Your task to perform on an android device: Open calendar and show me the fourth week of next month Image 0: 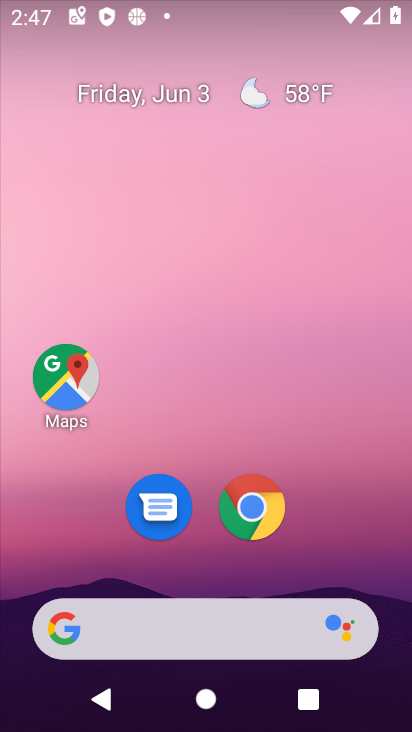
Step 0: drag from (340, 550) to (266, 104)
Your task to perform on an android device: Open calendar and show me the fourth week of next month Image 1: 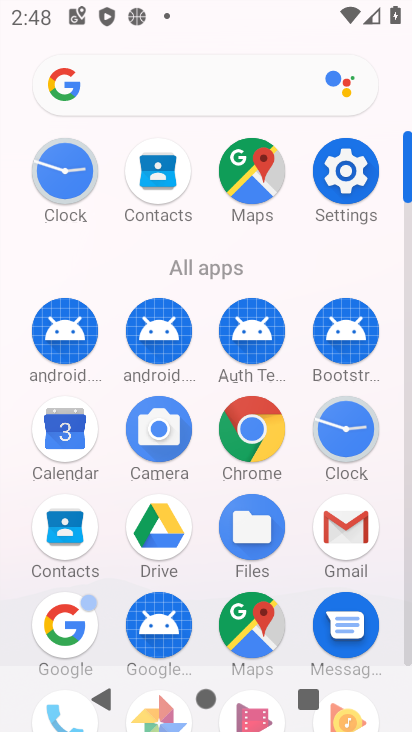
Step 1: click (66, 433)
Your task to perform on an android device: Open calendar and show me the fourth week of next month Image 2: 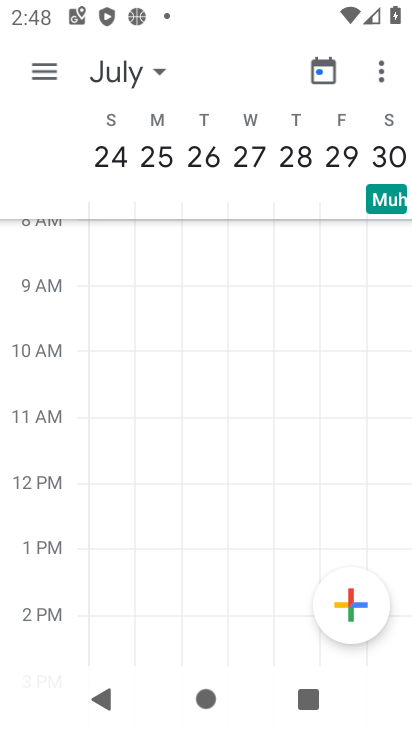
Step 2: click (328, 74)
Your task to perform on an android device: Open calendar and show me the fourth week of next month Image 3: 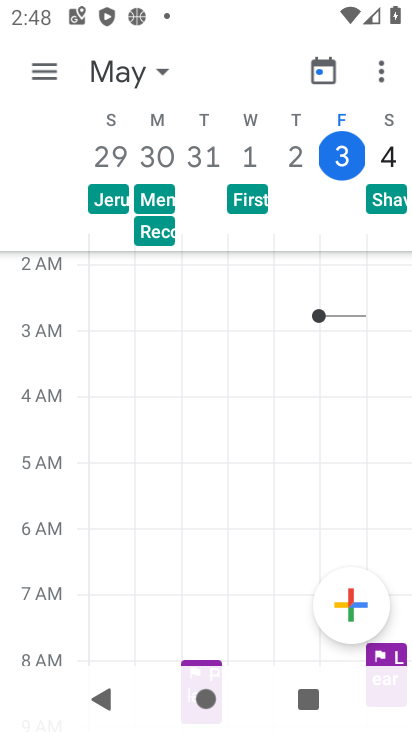
Step 3: click (156, 67)
Your task to perform on an android device: Open calendar and show me the fourth week of next month Image 4: 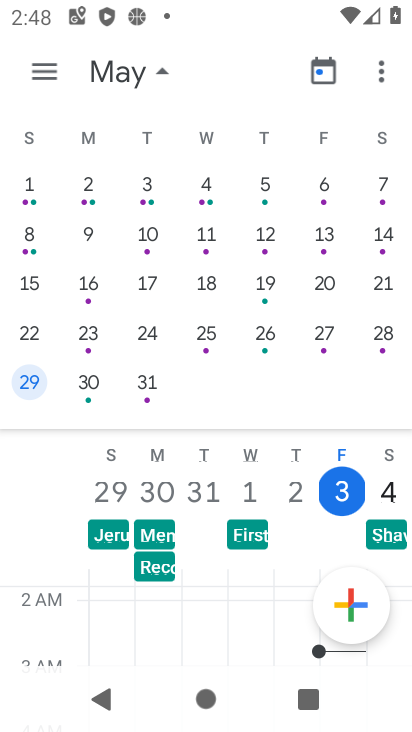
Step 4: click (327, 67)
Your task to perform on an android device: Open calendar and show me the fourth week of next month Image 5: 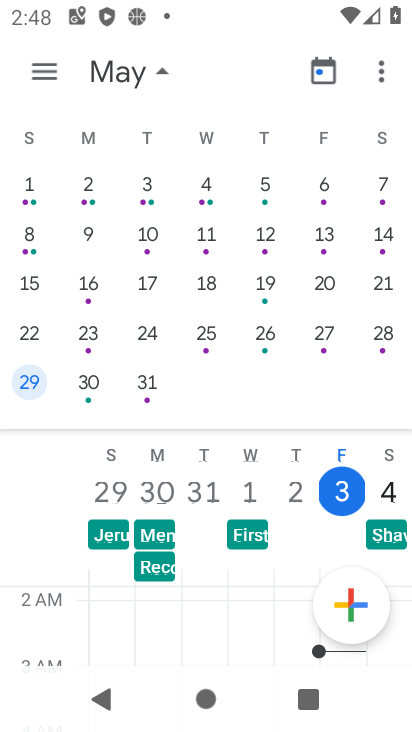
Step 5: click (327, 67)
Your task to perform on an android device: Open calendar and show me the fourth week of next month Image 6: 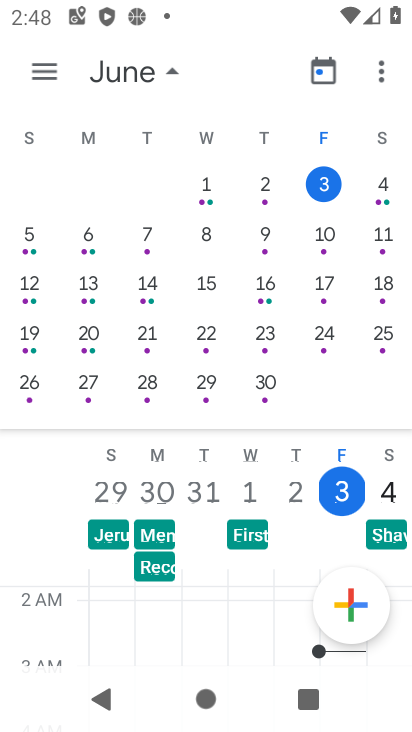
Step 6: drag from (355, 305) to (2, 342)
Your task to perform on an android device: Open calendar and show me the fourth week of next month Image 7: 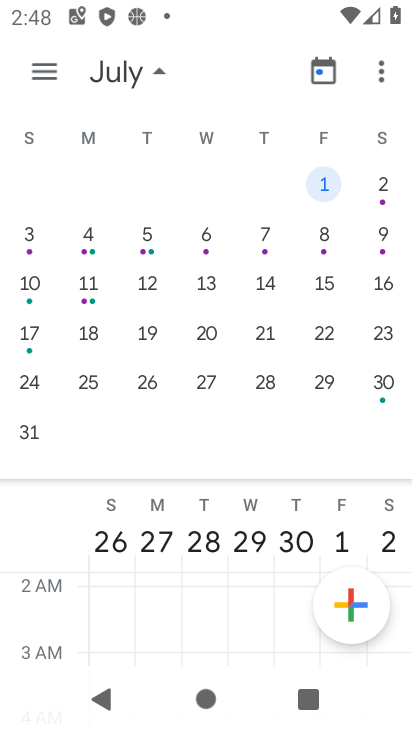
Step 7: click (91, 375)
Your task to perform on an android device: Open calendar and show me the fourth week of next month Image 8: 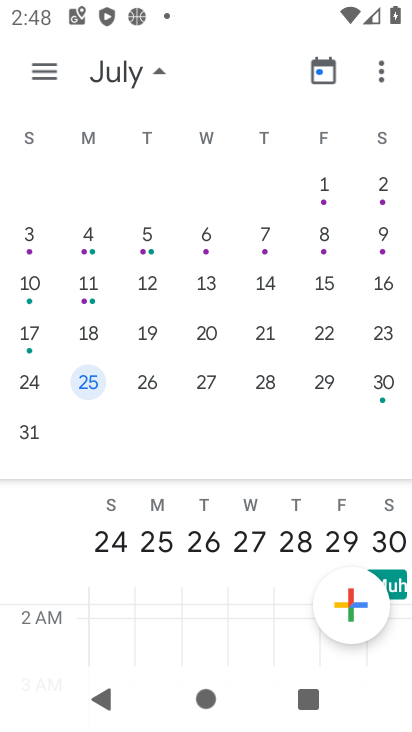
Step 8: click (44, 77)
Your task to perform on an android device: Open calendar and show me the fourth week of next month Image 9: 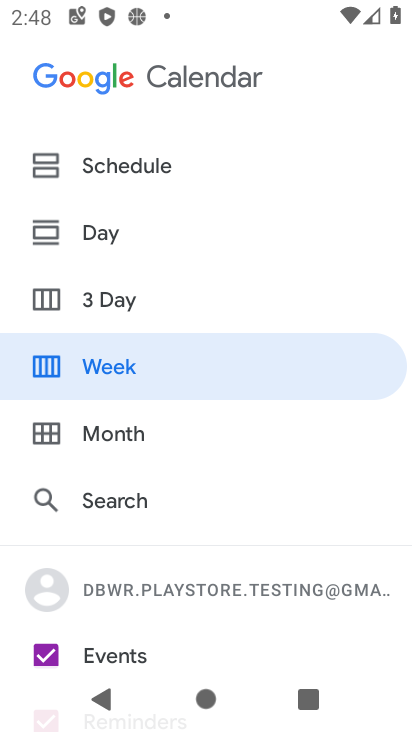
Step 9: click (112, 354)
Your task to perform on an android device: Open calendar and show me the fourth week of next month Image 10: 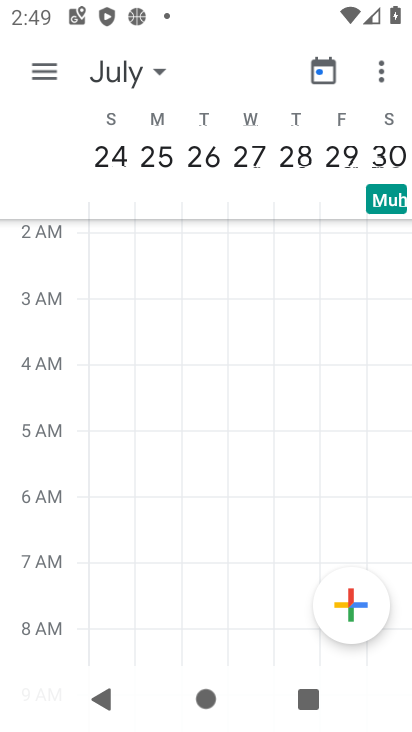
Step 10: task complete